Your task to perform on an android device: toggle sleep mode Image 0: 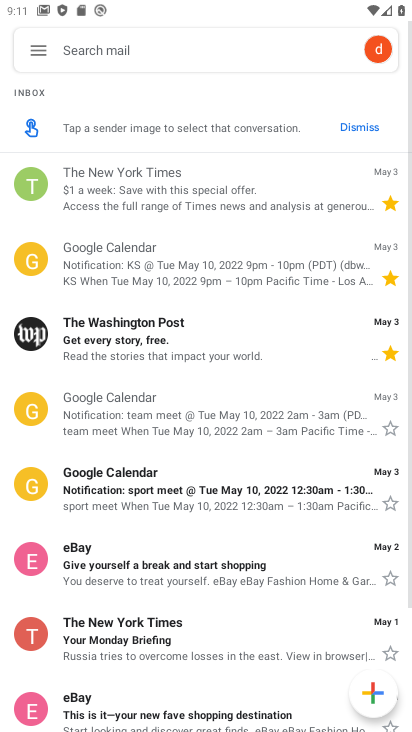
Step 0: press home button
Your task to perform on an android device: toggle sleep mode Image 1: 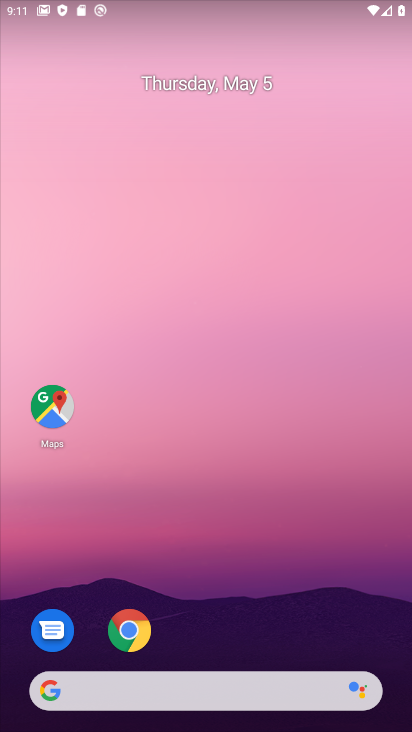
Step 1: drag from (225, 620) to (128, 82)
Your task to perform on an android device: toggle sleep mode Image 2: 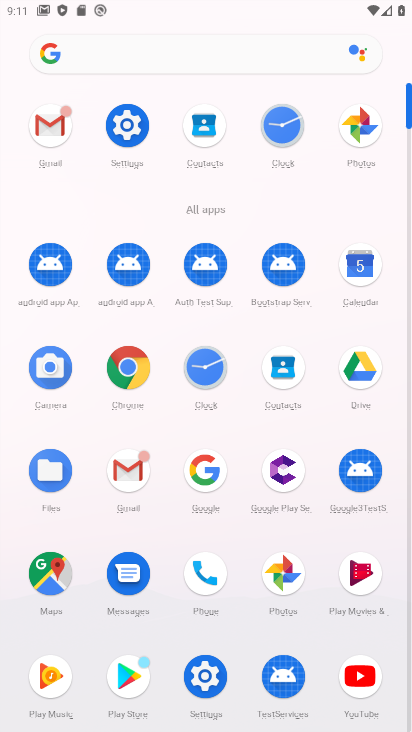
Step 2: click (123, 130)
Your task to perform on an android device: toggle sleep mode Image 3: 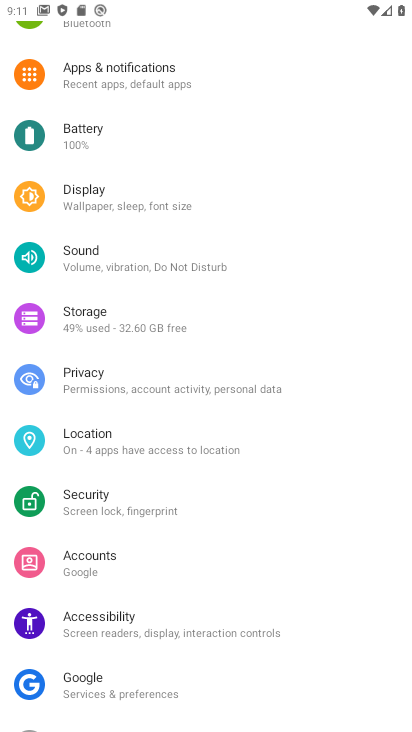
Step 3: click (123, 193)
Your task to perform on an android device: toggle sleep mode Image 4: 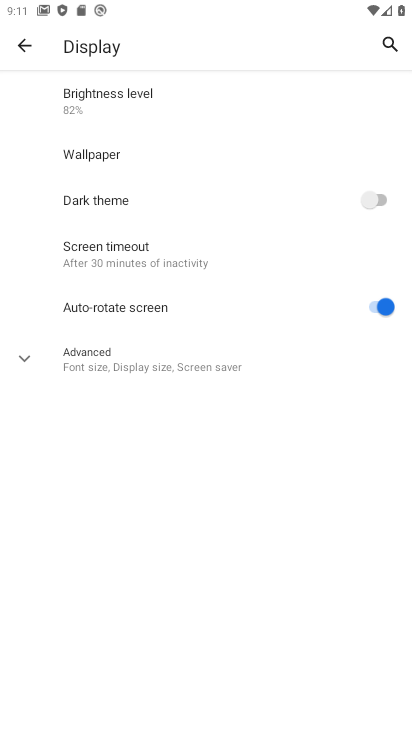
Step 4: click (126, 361)
Your task to perform on an android device: toggle sleep mode Image 5: 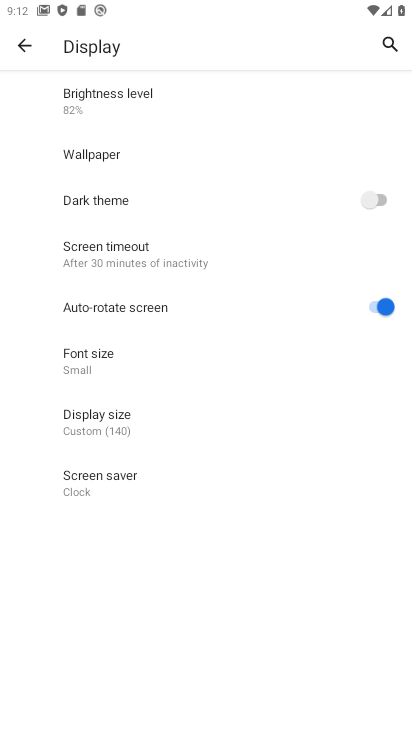
Step 5: task complete